Your task to perform on an android device: change text size in settings app Image 0: 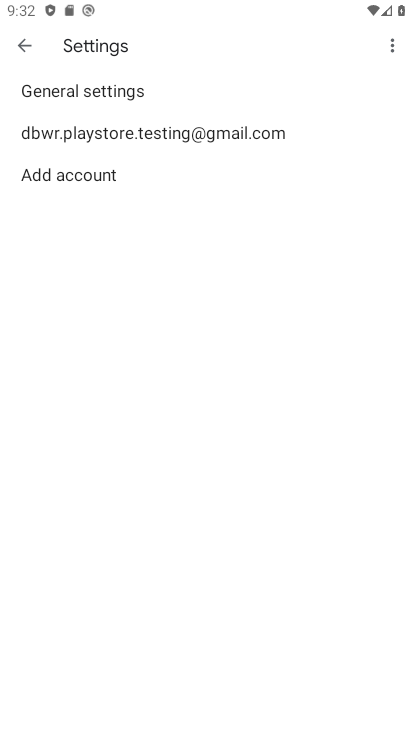
Step 0: press home button
Your task to perform on an android device: change text size in settings app Image 1: 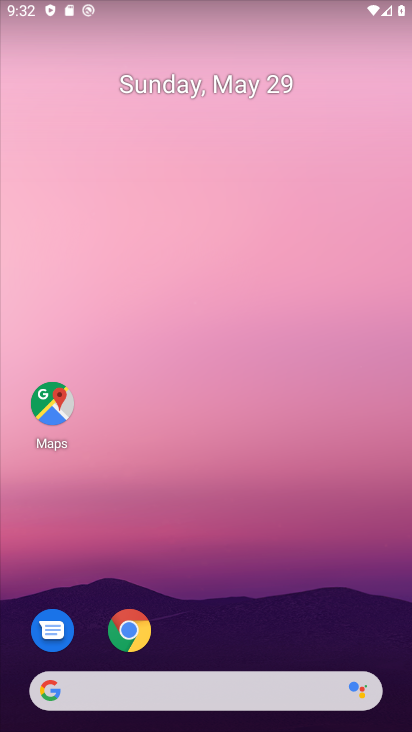
Step 1: drag from (136, 644) to (281, 150)
Your task to perform on an android device: change text size in settings app Image 2: 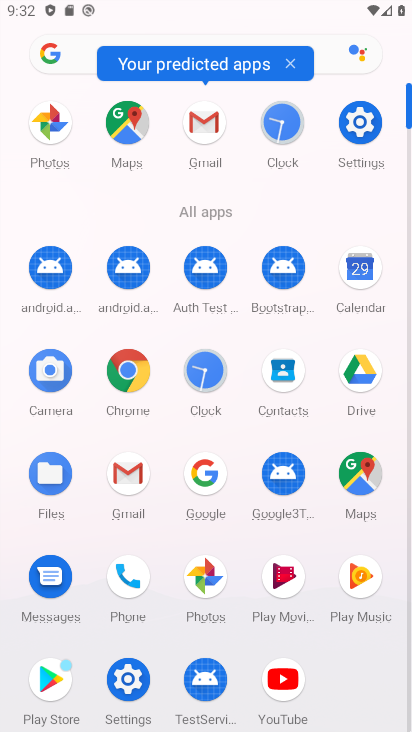
Step 2: drag from (183, 598) to (307, 327)
Your task to perform on an android device: change text size in settings app Image 3: 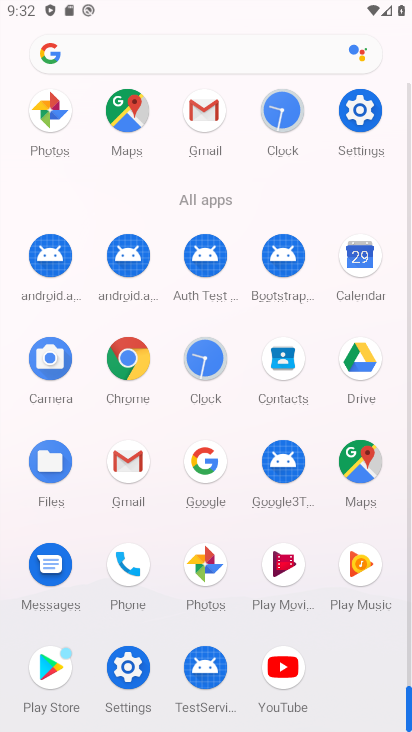
Step 3: click (126, 668)
Your task to perform on an android device: change text size in settings app Image 4: 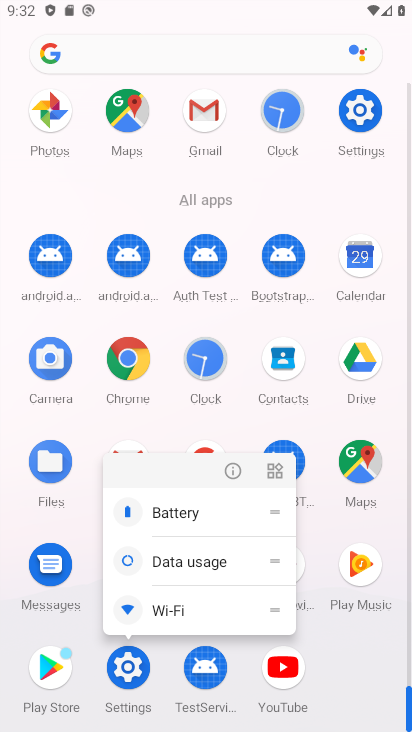
Step 4: click (130, 668)
Your task to perform on an android device: change text size in settings app Image 5: 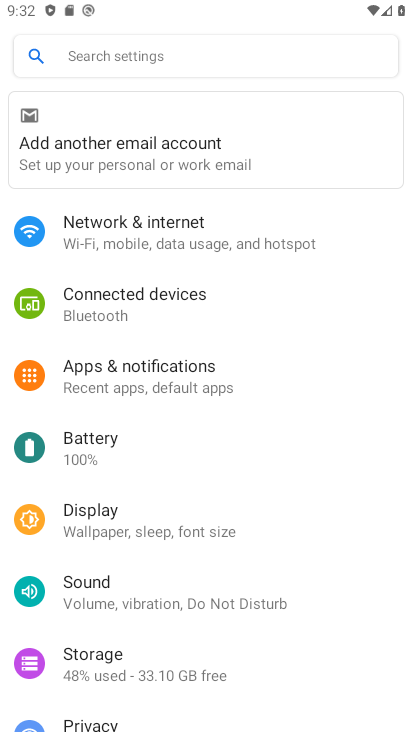
Step 5: click (159, 525)
Your task to perform on an android device: change text size in settings app Image 6: 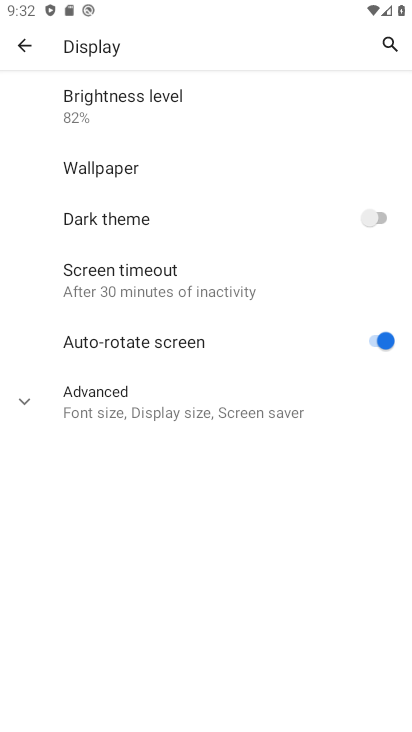
Step 6: click (213, 422)
Your task to perform on an android device: change text size in settings app Image 7: 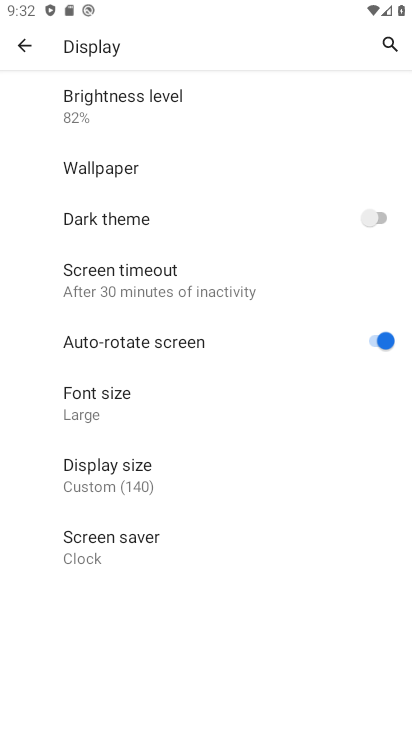
Step 7: click (151, 388)
Your task to perform on an android device: change text size in settings app Image 8: 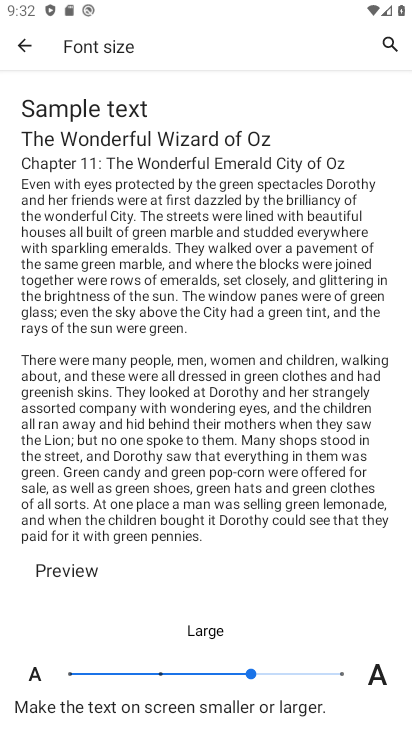
Step 8: click (158, 677)
Your task to perform on an android device: change text size in settings app Image 9: 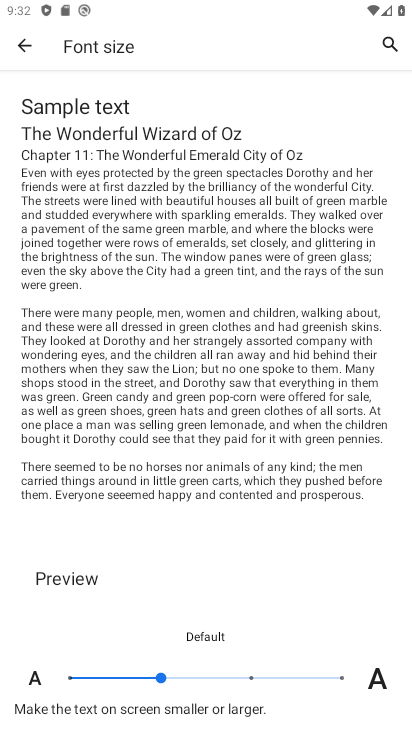
Step 9: task complete